Your task to perform on an android device: Open notification settings Image 0: 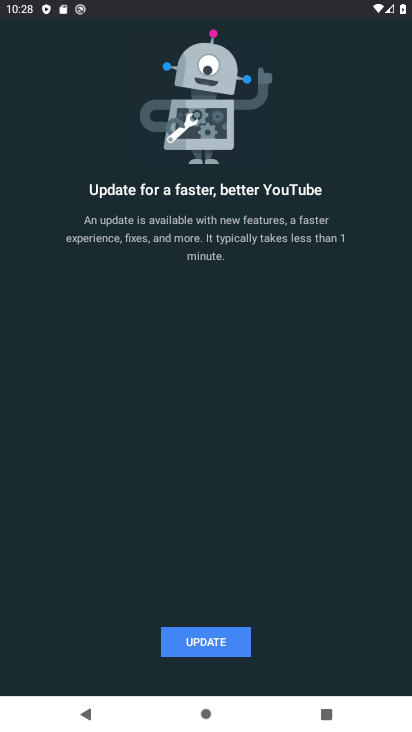
Step 0: press home button
Your task to perform on an android device: Open notification settings Image 1: 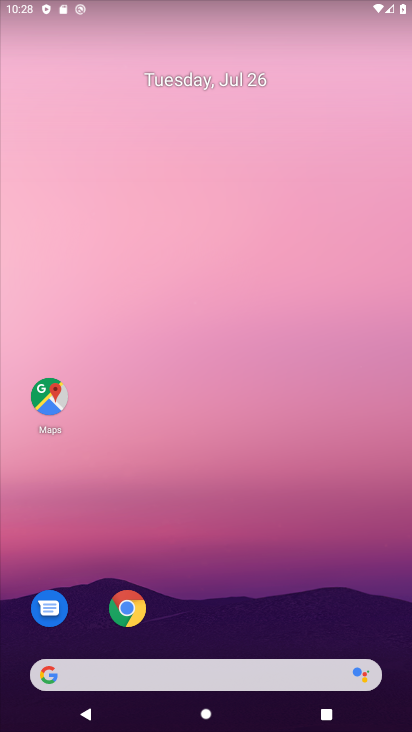
Step 1: drag from (267, 570) to (194, 0)
Your task to perform on an android device: Open notification settings Image 2: 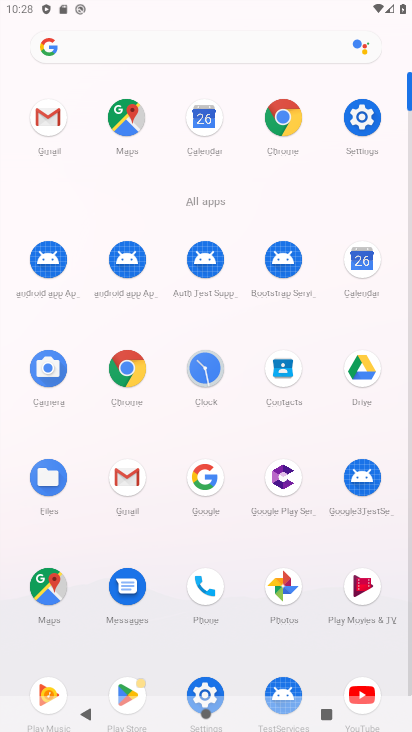
Step 2: click (364, 120)
Your task to perform on an android device: Open notification settings Image 3: 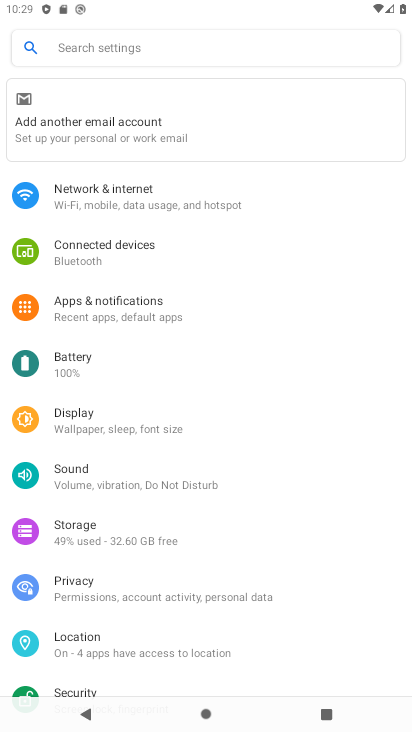
Step 3: click (93, 315)
Your task to perform on an android device: Open notification settings Image 4: 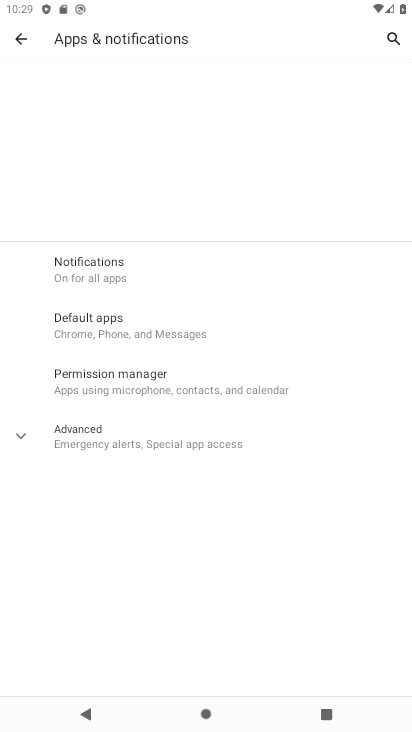
Step 4: click (120, 265)
Your task to perform on an android device: Open notification settings Image 5: 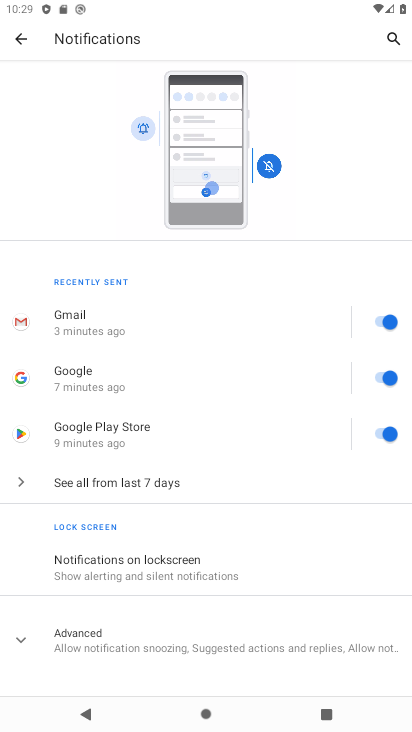
Step 5: task complete